Your task to perform on an android device: change the clock style Image 0: 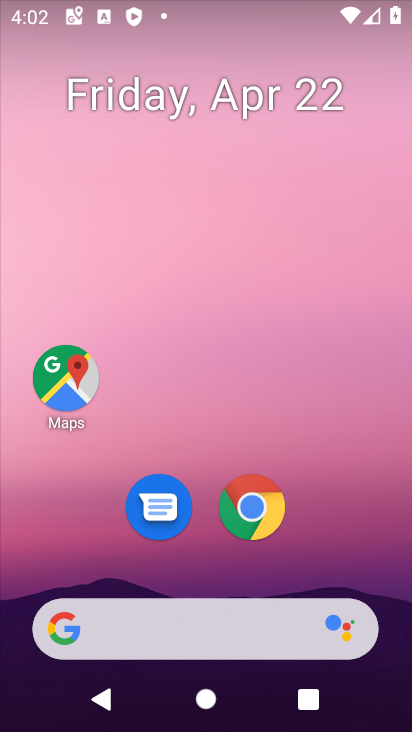
Step 0: drag from (357, 526) to (370, 77)
Your task to perform on an android device: change the clock style Image 1: 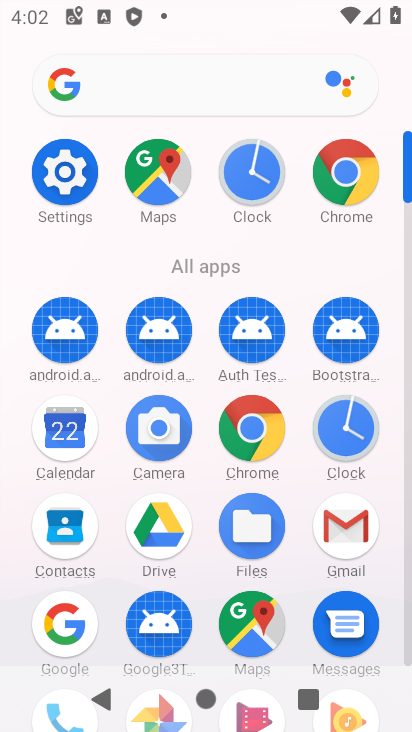
Step 1: click (262, 183)
Your task to perform on an android device: change the clock style Image 2: 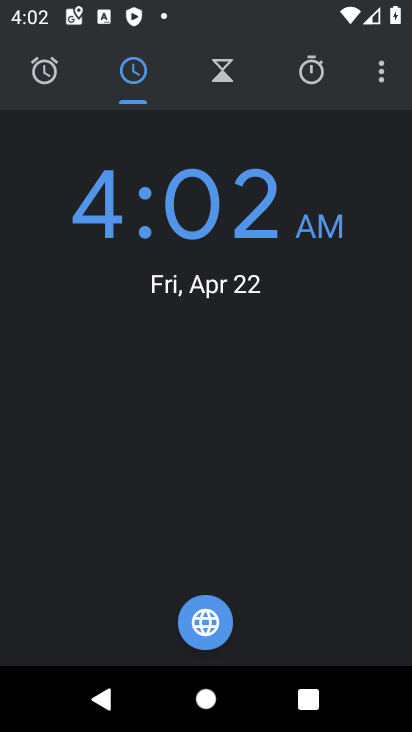
Step 2: click (375, 73)
Your task to perform on an android device: change the clock style Image 3: 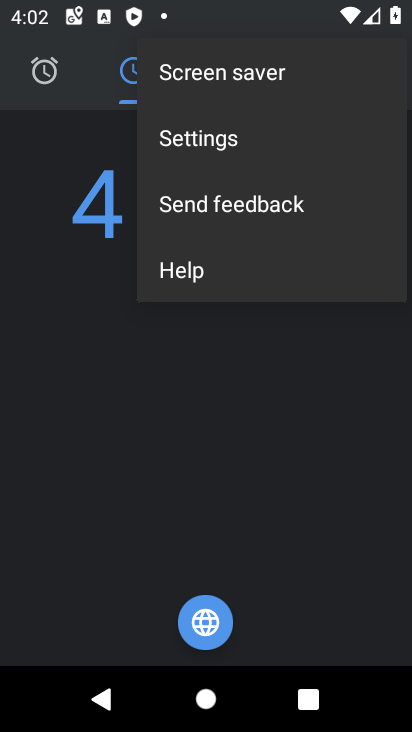
Step 3: click (311, 135)
Your task to perform on an android device: change the clock style Image 4: 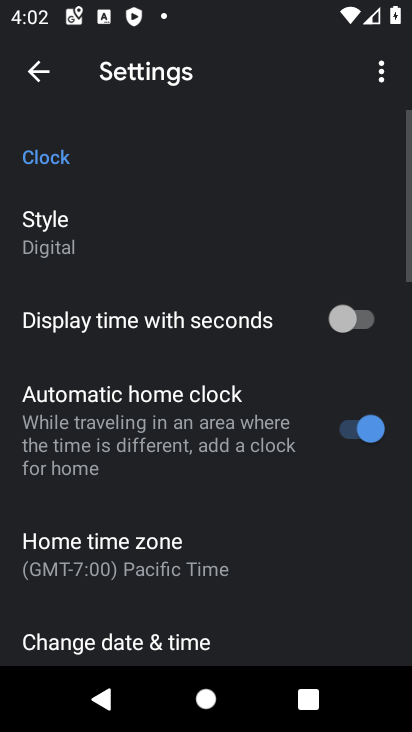
Step 4: click (204, 252)
Your task to perform on an android device: change the clock style Image 5: 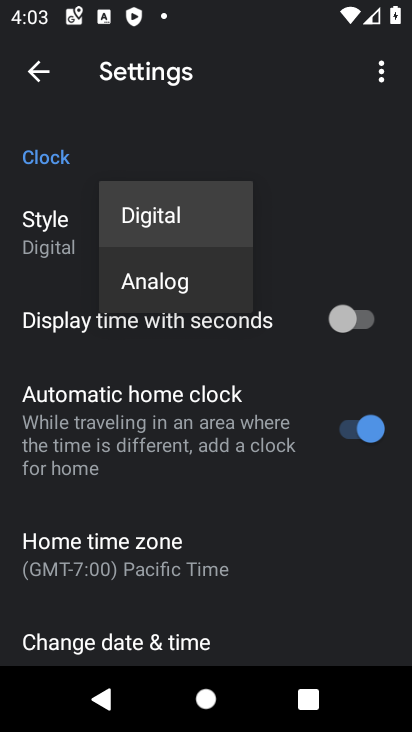
Step 5: click (204, 271)
Your task to perform on an android device: change the clock style Image 6: 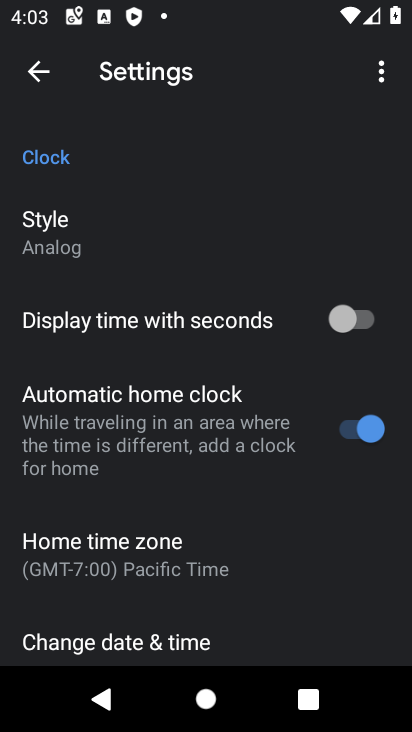
Step 6: task complete